Your task to perform on an android device: open chrome privacy settings Image 0: 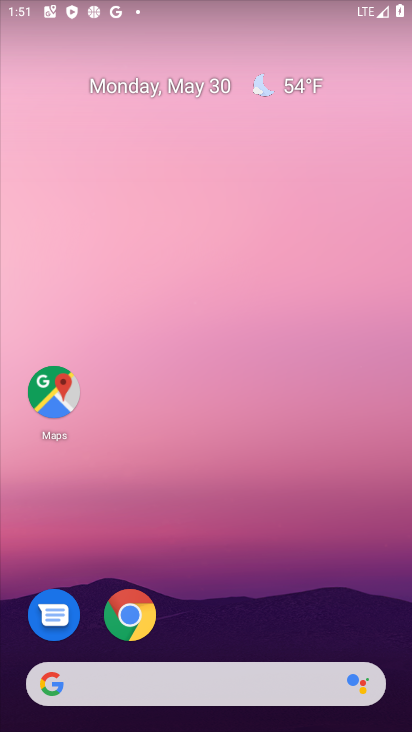
Step 0: click (152, 622)
Your task to perform on an android device: open chrome privacy settings Image 1: 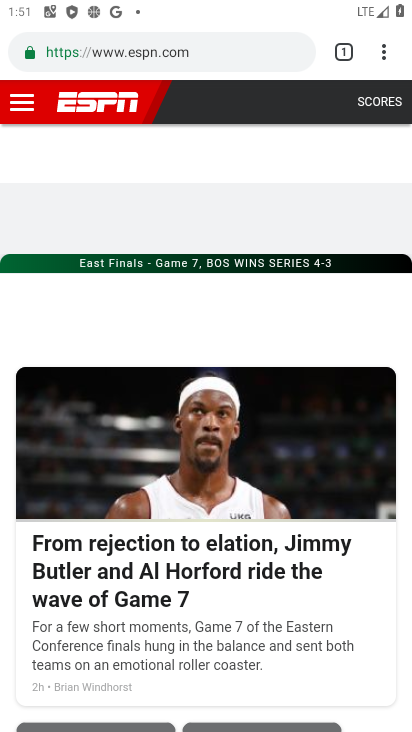
Step 1: click (384, 56)
Your task to perform on an android device: open chrome privacy settings Image 2: 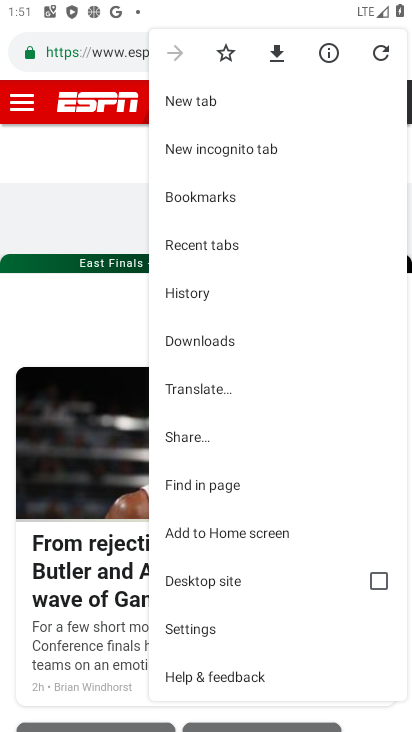
Step 2: click (187, 629)
Your task to perform on an android device: open chrome privacy settings Image 3: 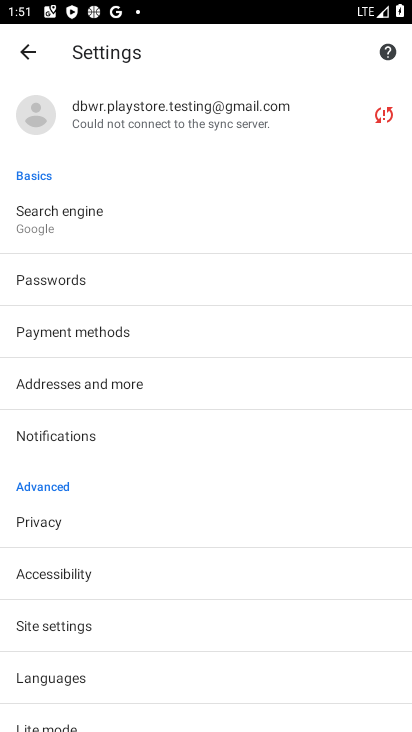
Step 3: click (79, 525)
Your task to perform on an android device: open chrome privacy settings Image 4: 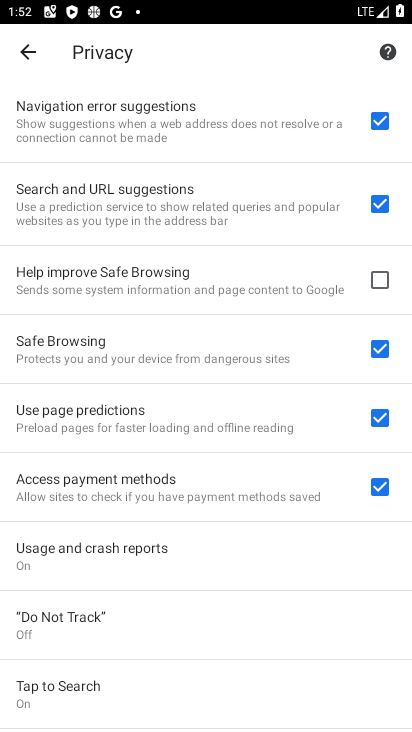
Step 4: task complete